Your task to perform on an android device: Search for "macbook" on target.com, select the first entry, add it to the cart, then select checkout. Image 0: 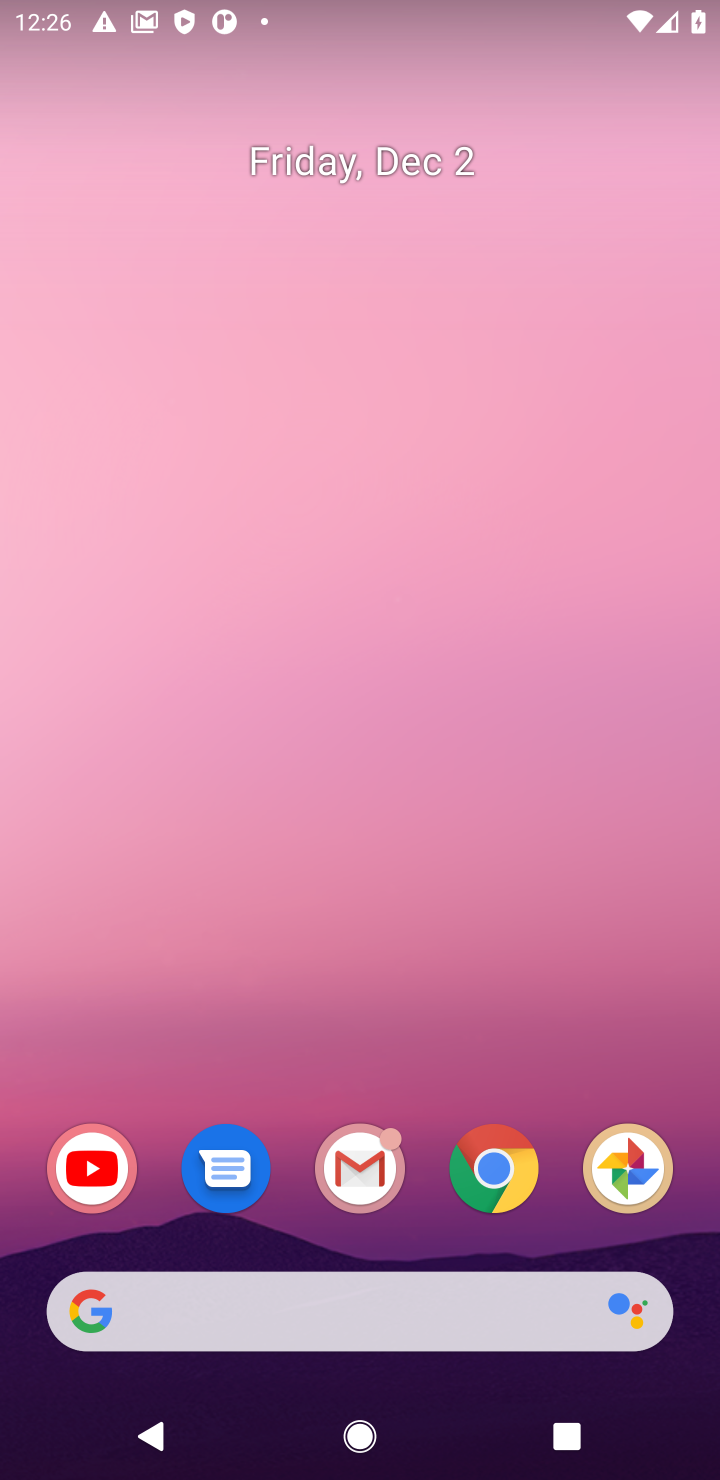
Step 0: click (499, 1182)
Your task to perform on an android device: Search for "macbook" on target.com, select the first entry, add it to the cart, then select checkout. Image 1: 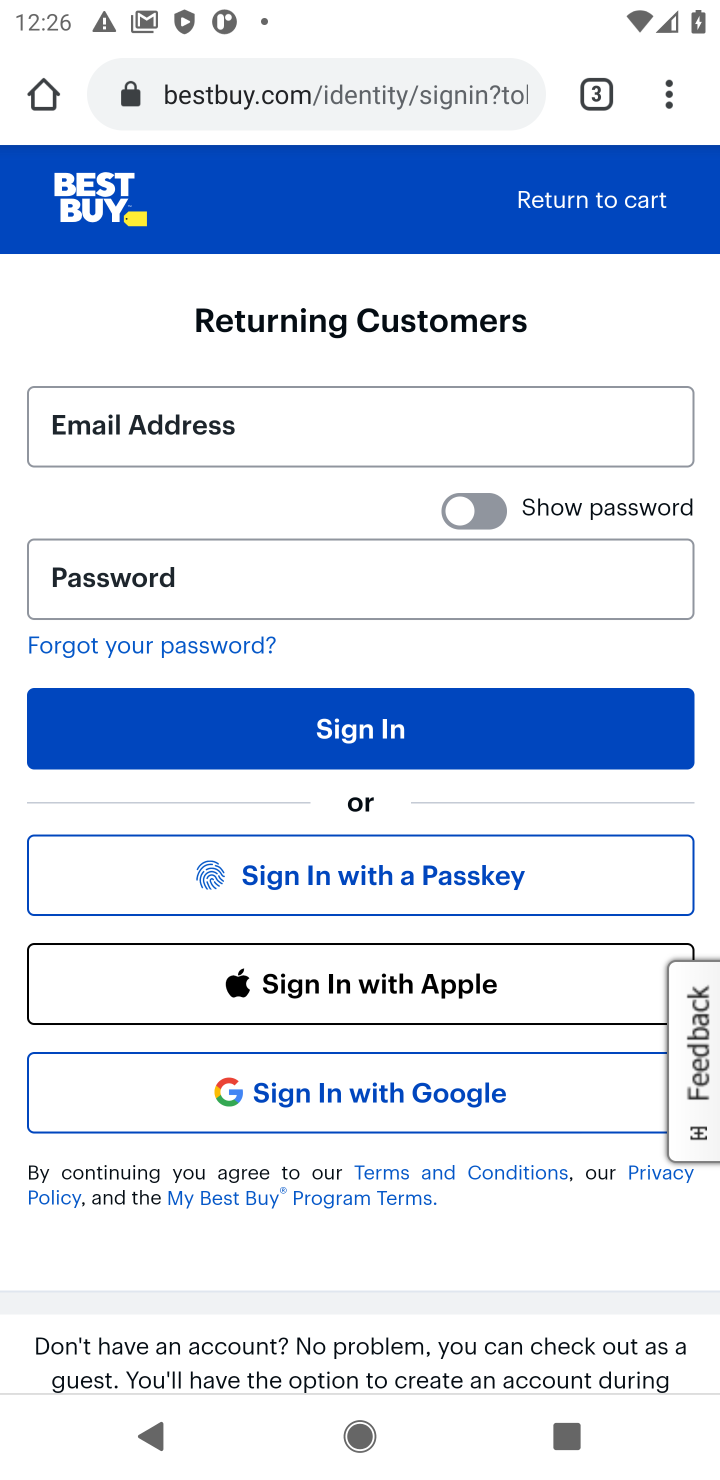
Step 1: click (293, 84)
Your task to perform on an android device: Search for "macbook" on target.com, select the first entry, add it to the cart, then select checkout. Image 2: 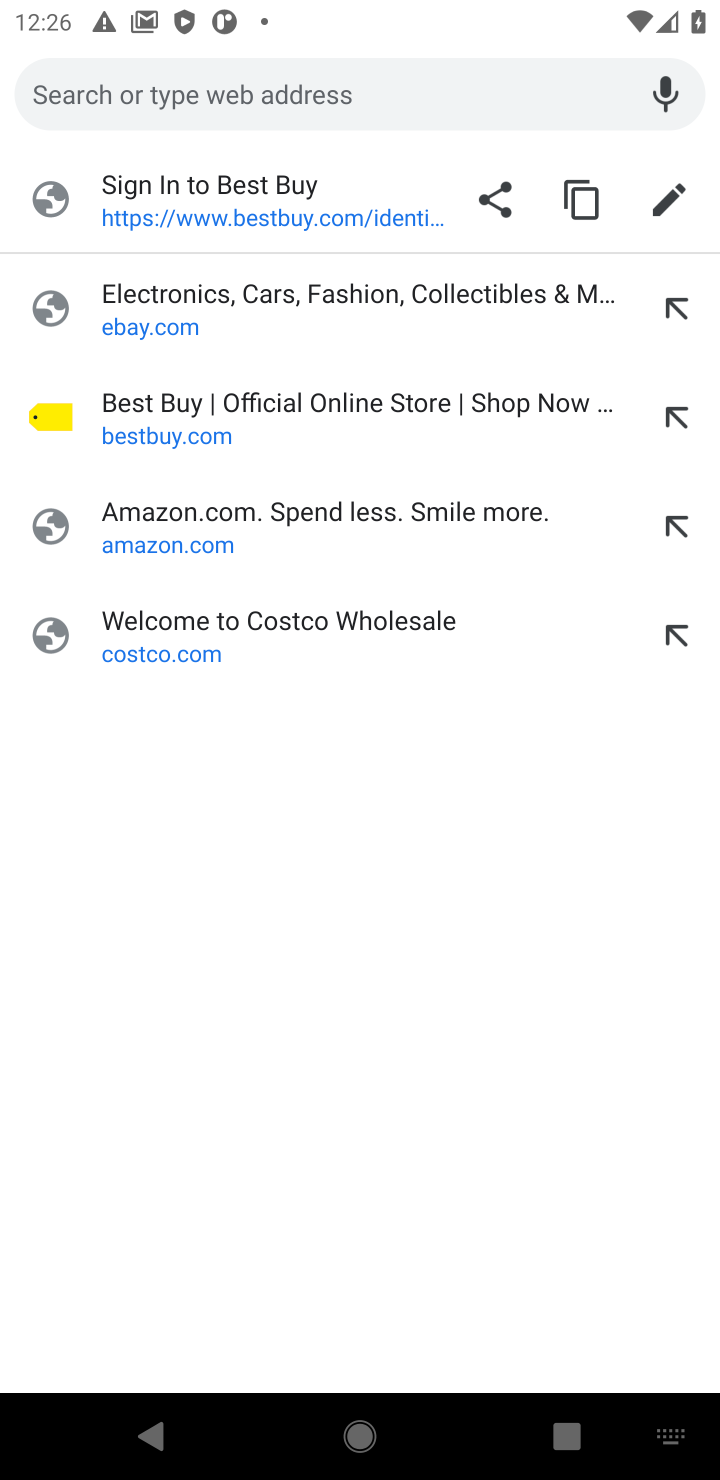
Step 2: type "target.com"
Your task to perform on an android device: Search for "macbook" on target.com, select the first entry, add it to the cart, then select checkout. Image 3: 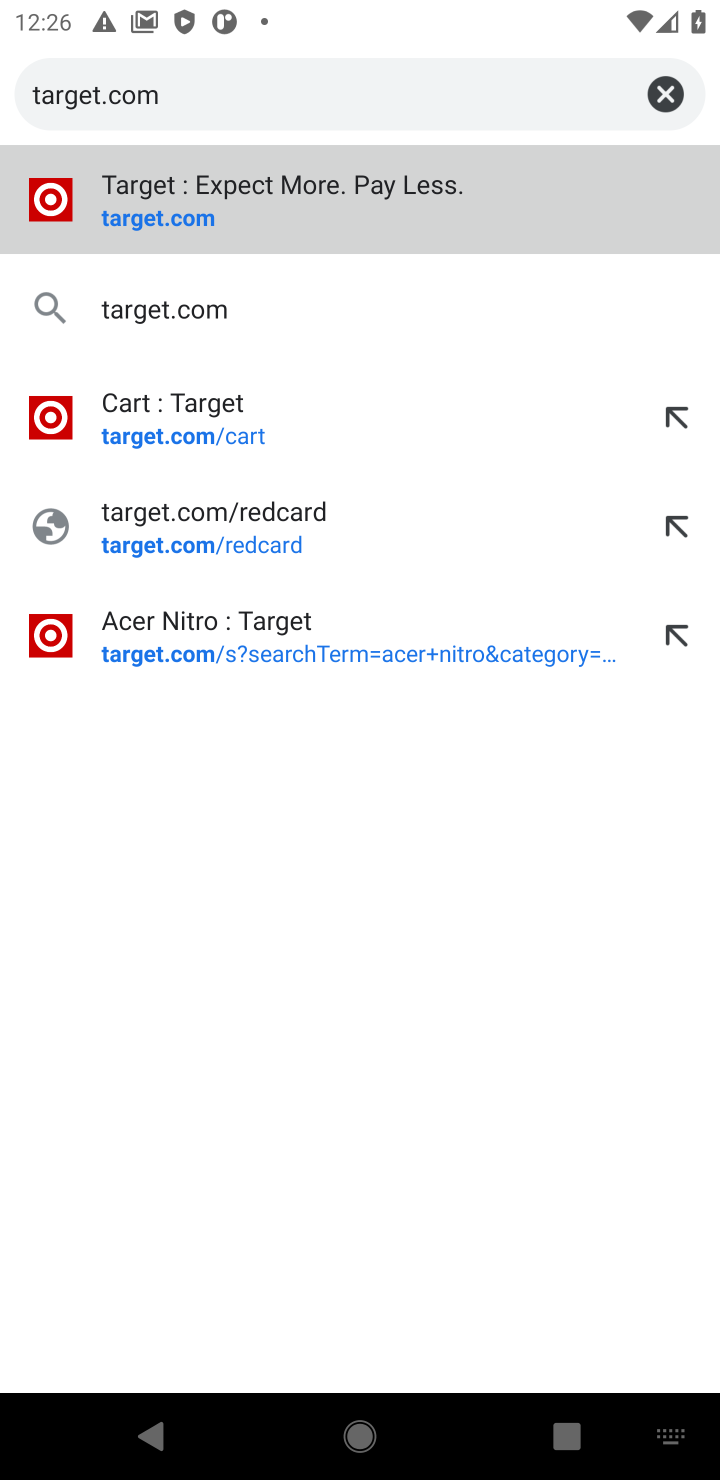
Step 3: click (139, 227)
Your task to perform on an android device: Search for "macbook" on target.com, select the first entry, add it to the cart, then select checkout. Image 4: 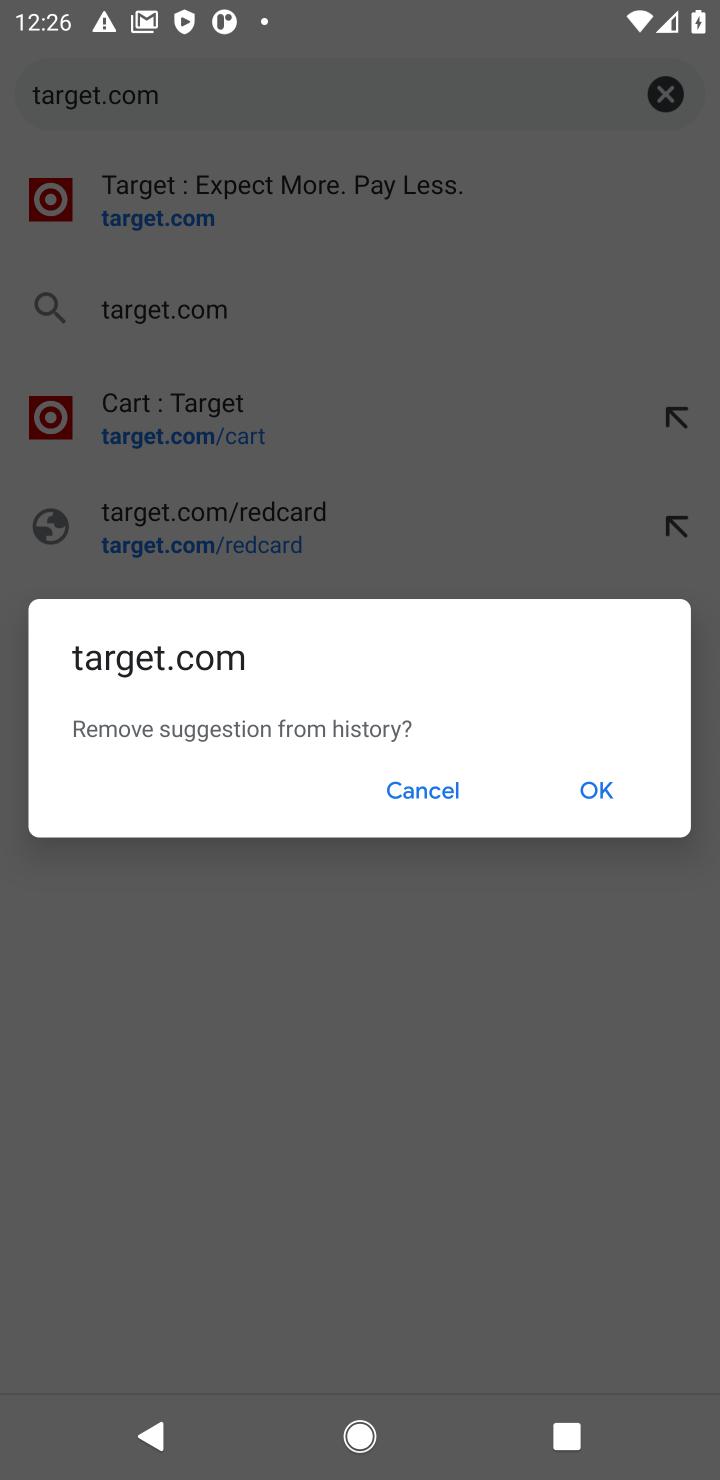
Step 4: click (601, 795)
Your task to perform on an android device: Search for "macbook" on target.com, select the first entry, add it to the cart, then select checkout. Image 5: 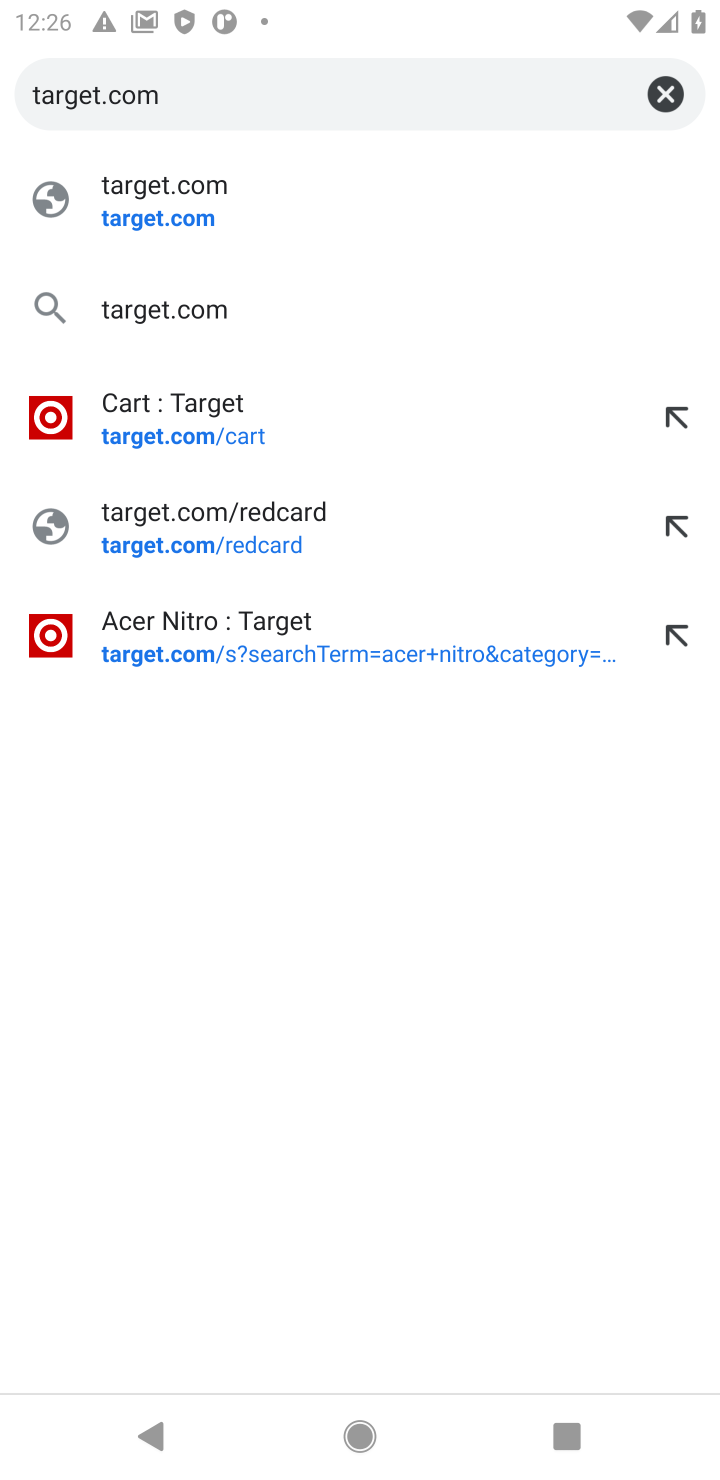
Step 5: click (446, 799)
Your task to perform on an android device: Search for "macbook" on target.com, select the first entry, add it to the cart, then select checkout. Image 6: 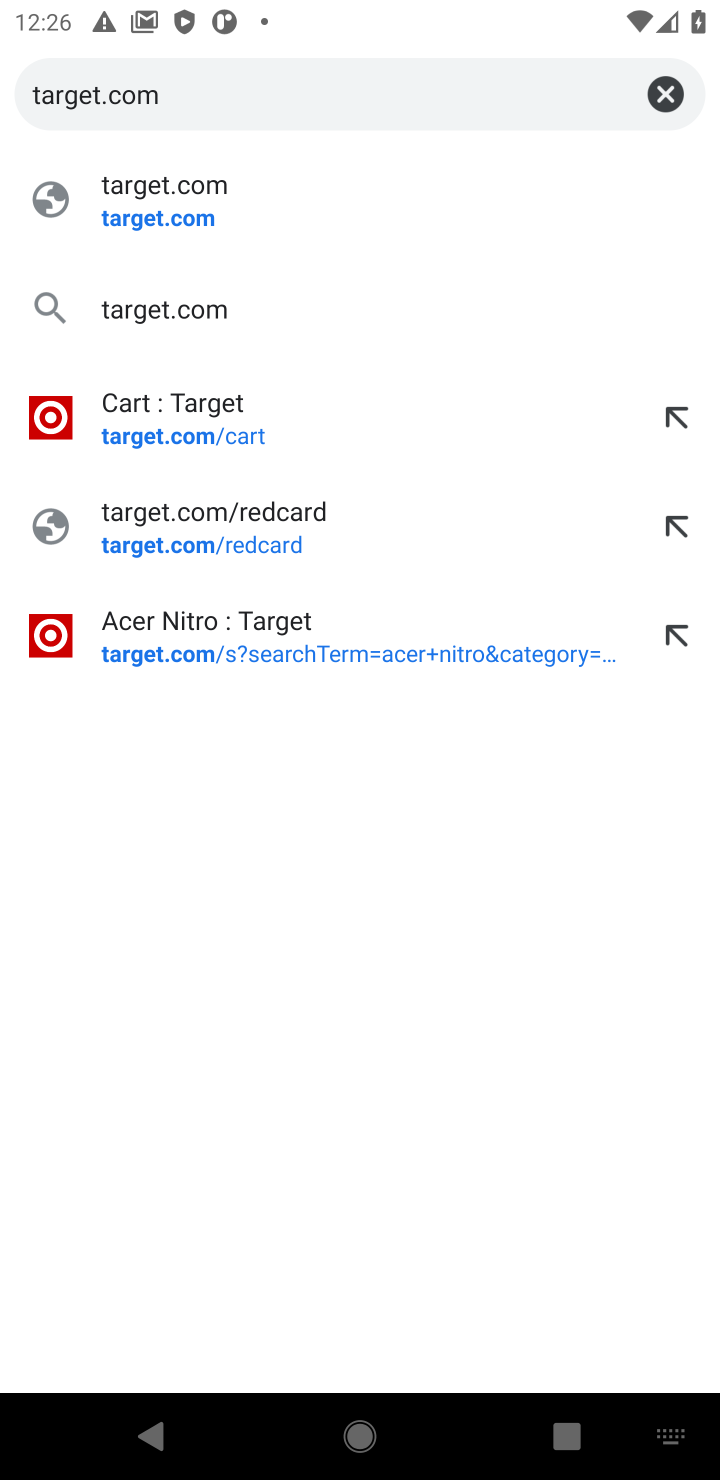
Step 6: click (152, 211)
Your task to perform on an android device: Search for "macbook" on target.com, select the first entry, add it to the cart, then select checkout. Image 7: 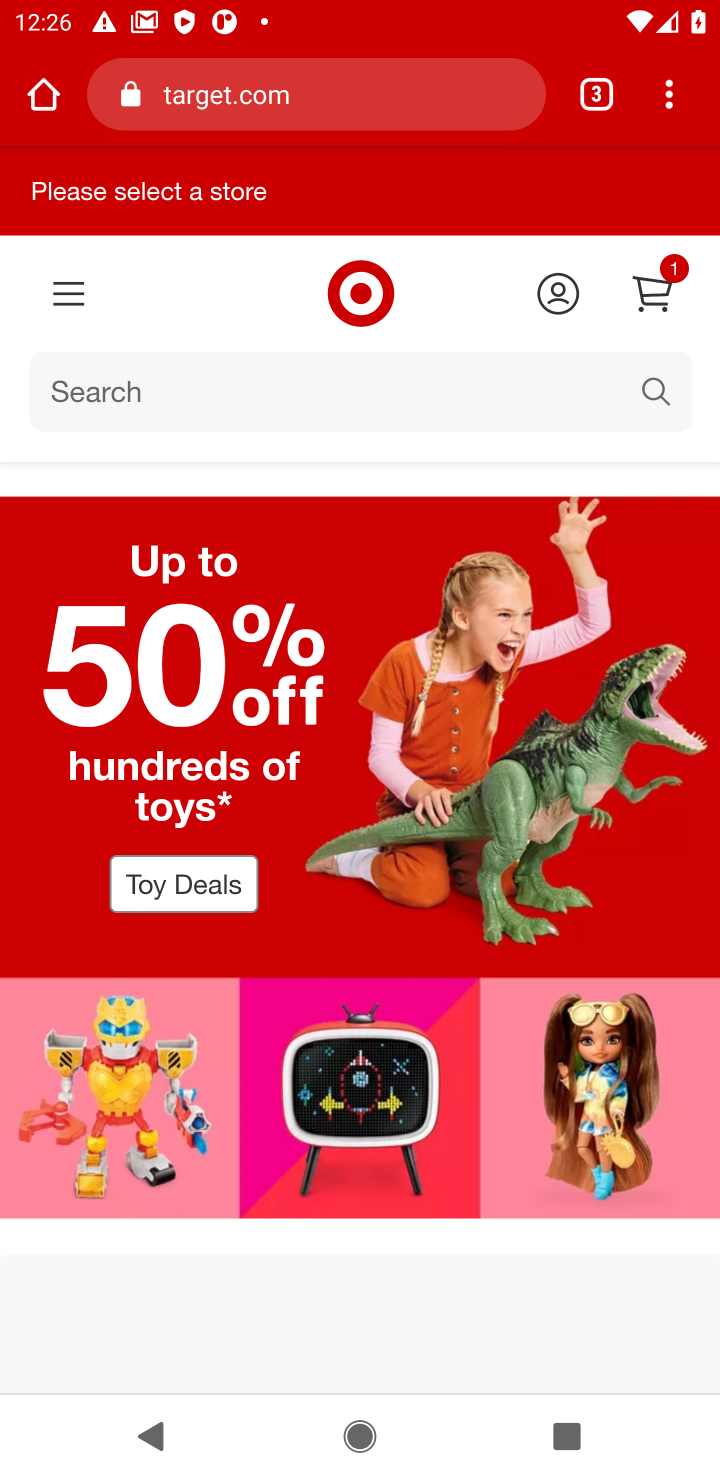
Step 7: click (79, 393)
Your task to perform on an android device: Search for "macbook" on target.com, select the first entry, add it to the cart, then select checkout. Image 8: 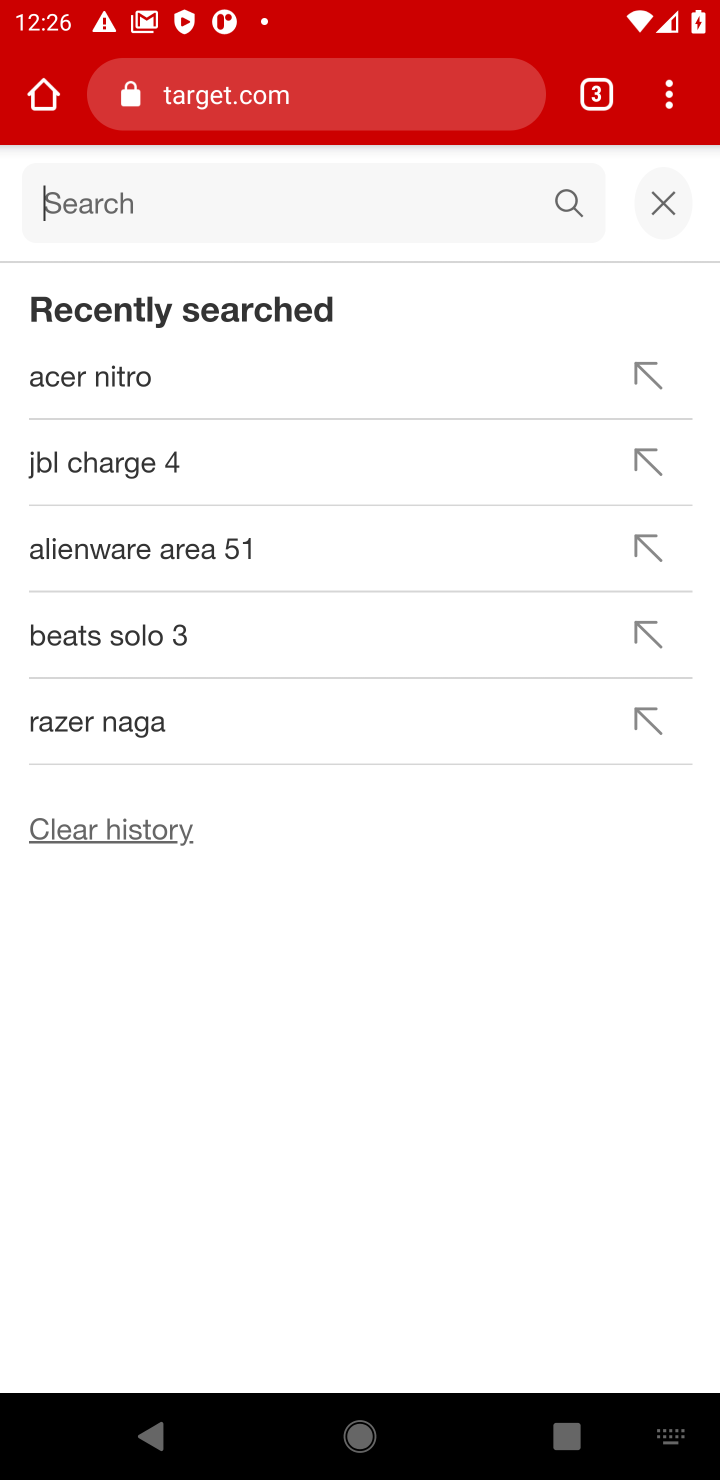
Step 8: type "macbook"
Your task to perform on an android device: Search for "macbook" on target.com, select the first entry, add it to the cart, then select checkout. Image 9: 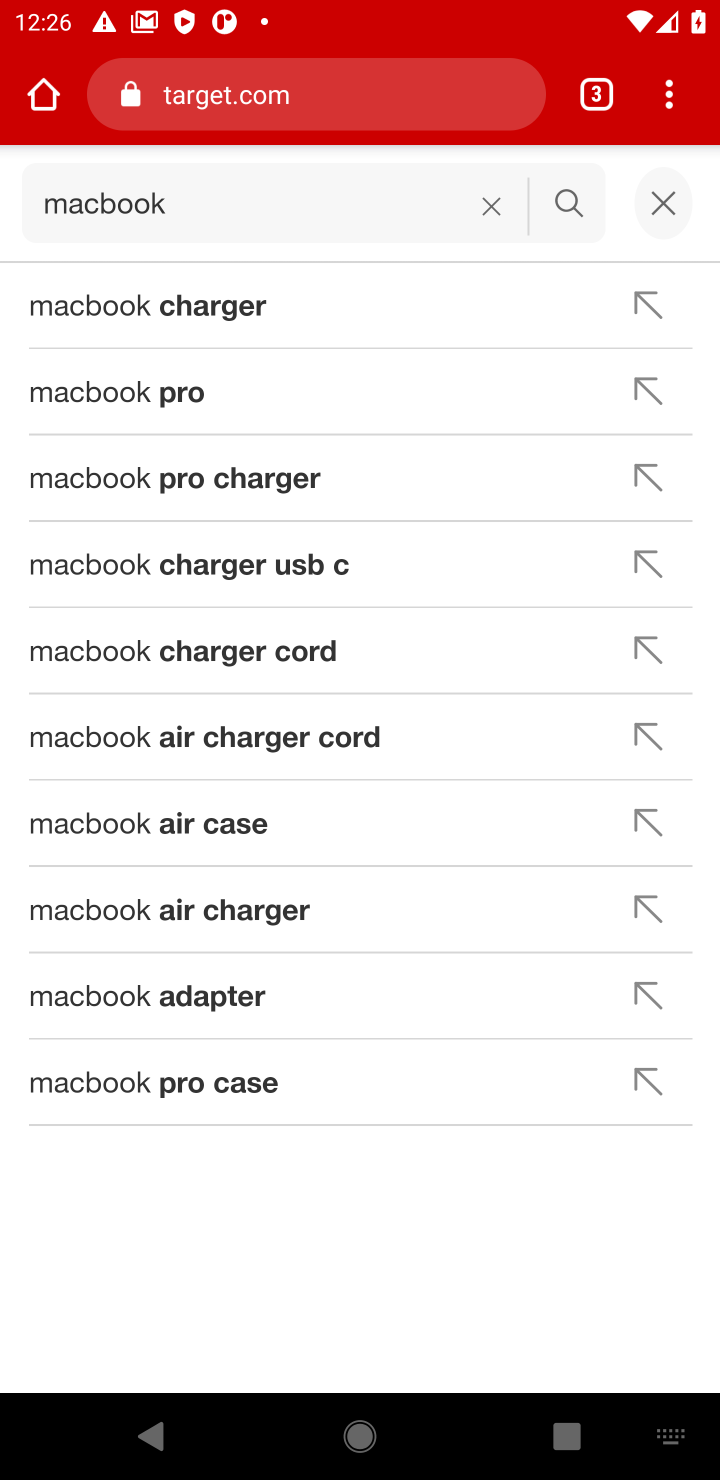
Step 9: click (574, 209)
Your task to perform on an android device: Search for "macbook" on target.com, select the first entry, add it to the cart, then select checkout. Image 10: 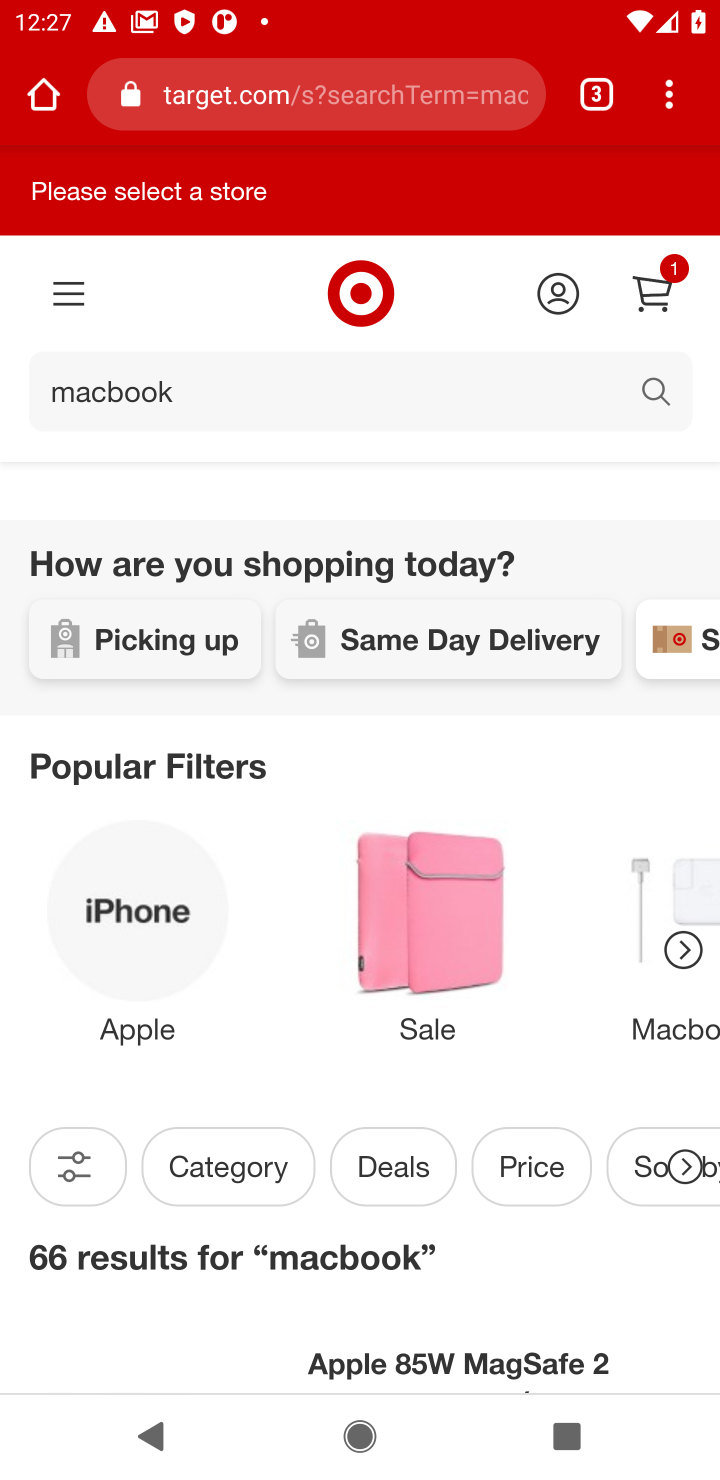
Step 10: drag from (246, 928) to (203, 398)
Your task to perform on an android device: Search for "macbook" on target.com, select the first entry, add it to the cart, then select checkout. Image 11: 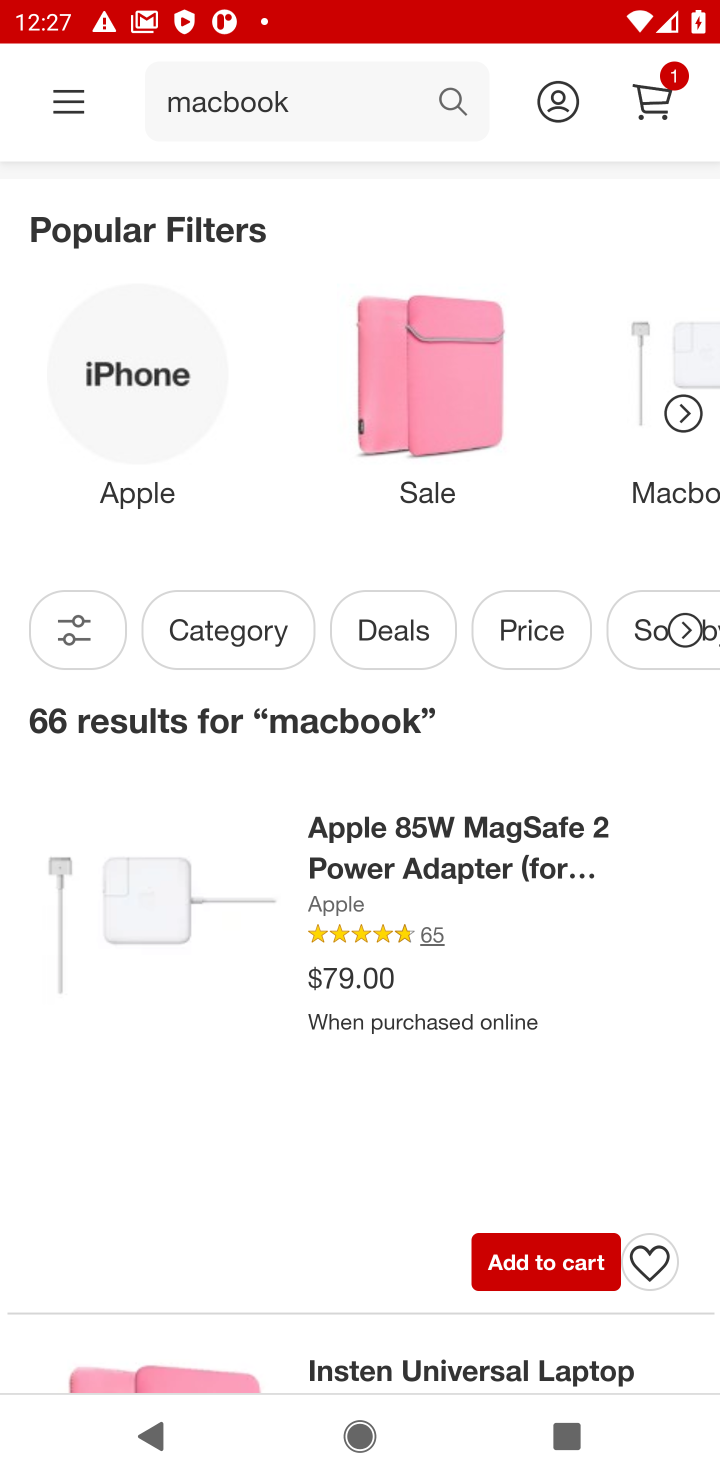
Step 11: click (408, 895)
Your task to perform on an android device: Search for "macbook" on target.com, select the first entry, add it to the cart, then select checkout. Image 12: 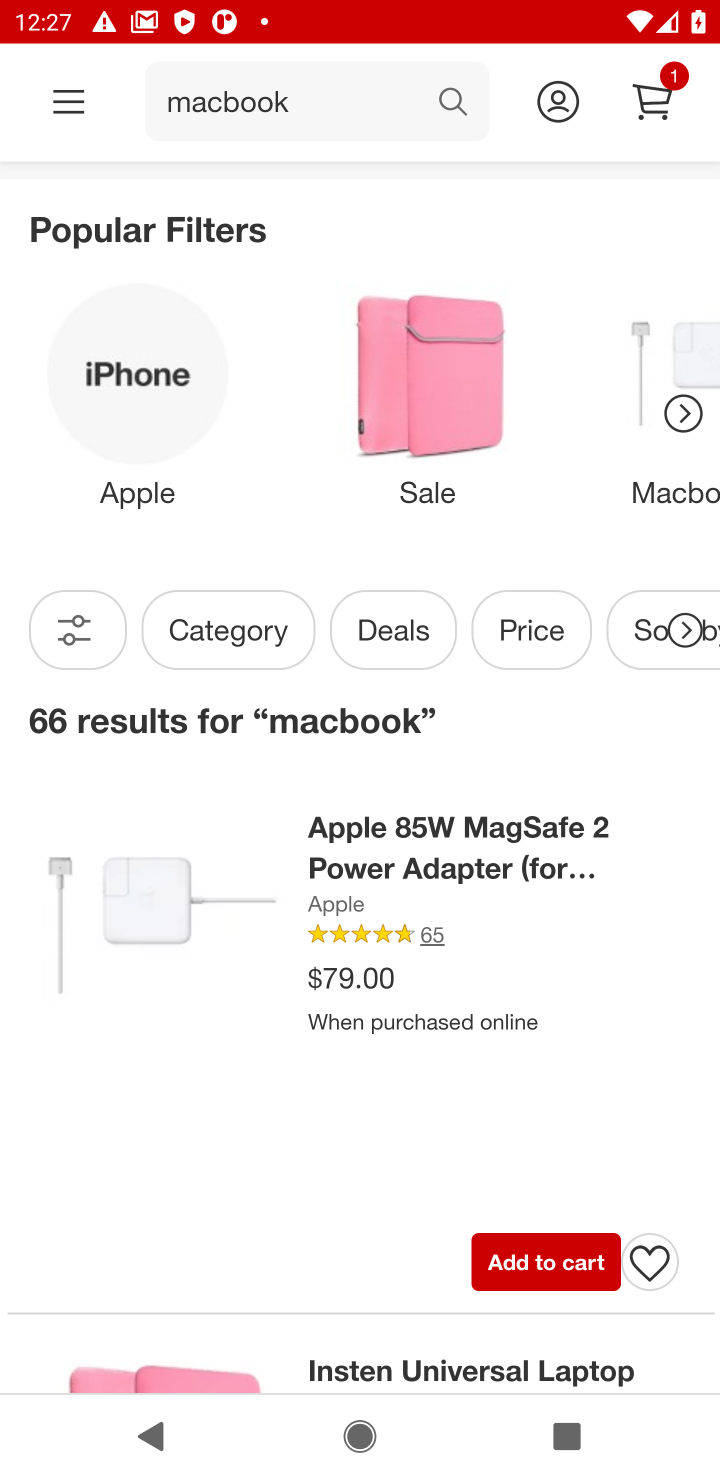
Step 12: click (376, 850)
Your task to perform on an android device: Search for "macbook" on target.com, select the first entry, add it to the cart, then select checkout. Image 13: 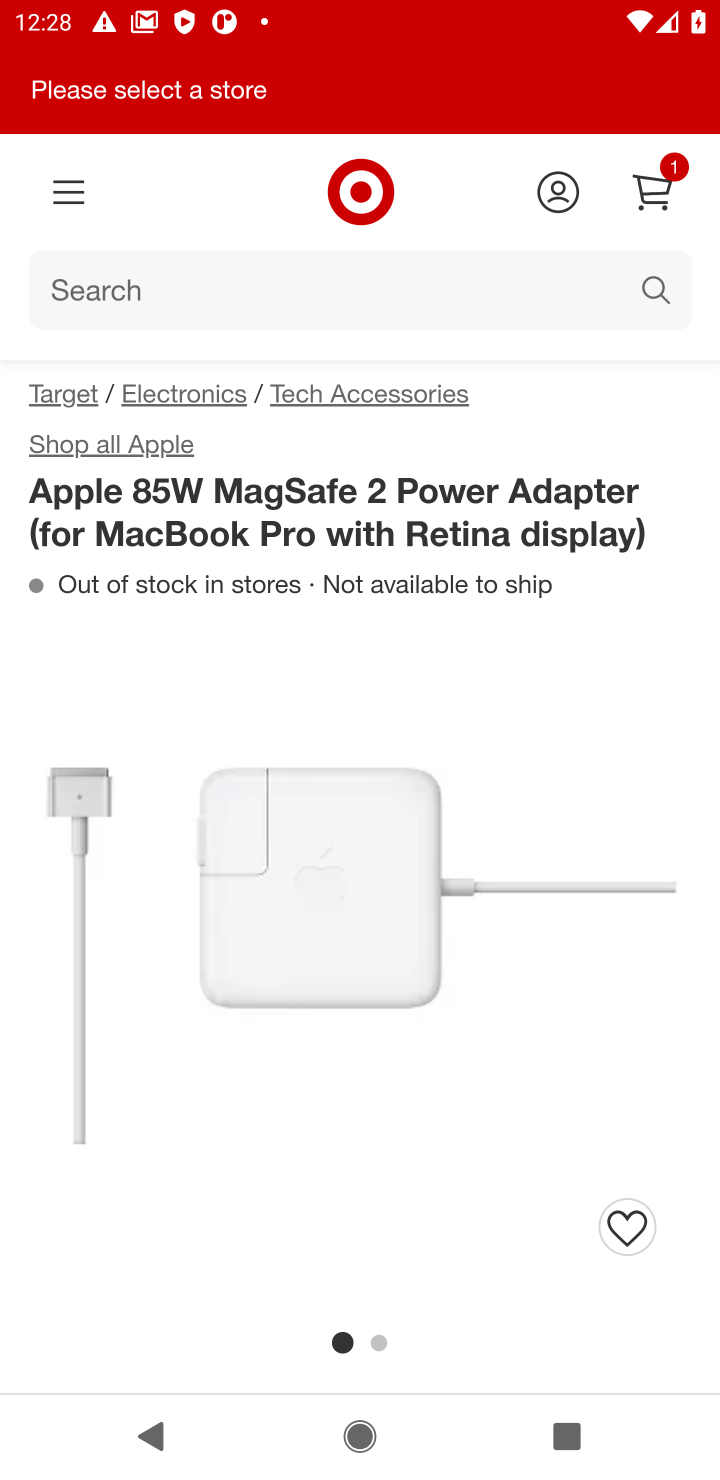
Step 13: drag from (464, 722) to (369, 214)
Your task to perform on an android device: Search for "macbook" on target.com, select the first entry, add it to the cart, then select checkout. Image 14: 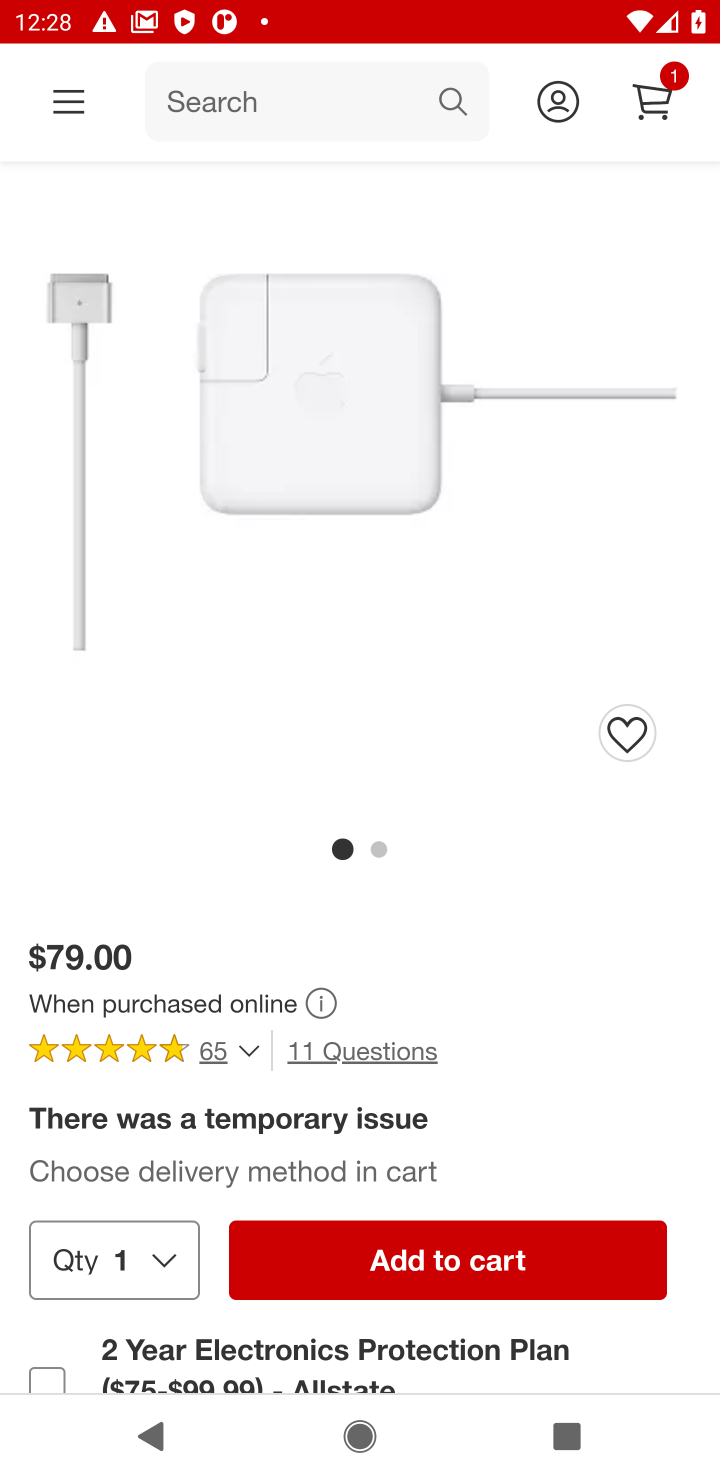
Step 14: click (404, 1256)
Your task to perform on an android device: Search for "macbook" on target.com, select the first entry, add it to the cart, then select checkout. Image 15: 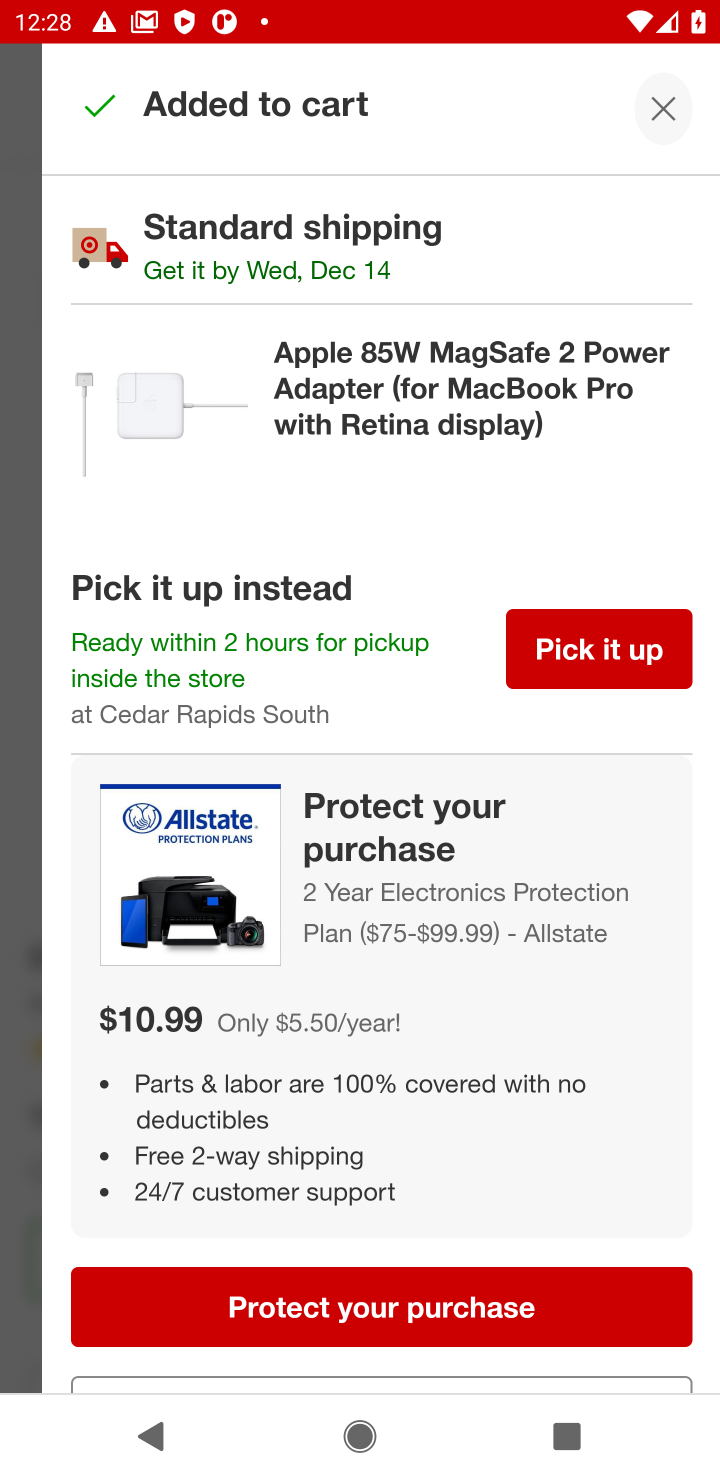
Step 15: click (663, 115)
Your task to perform on an android device: Search for "macbook" on target.com, select the first entry, add it to the cart, then select checkout. Image 16: 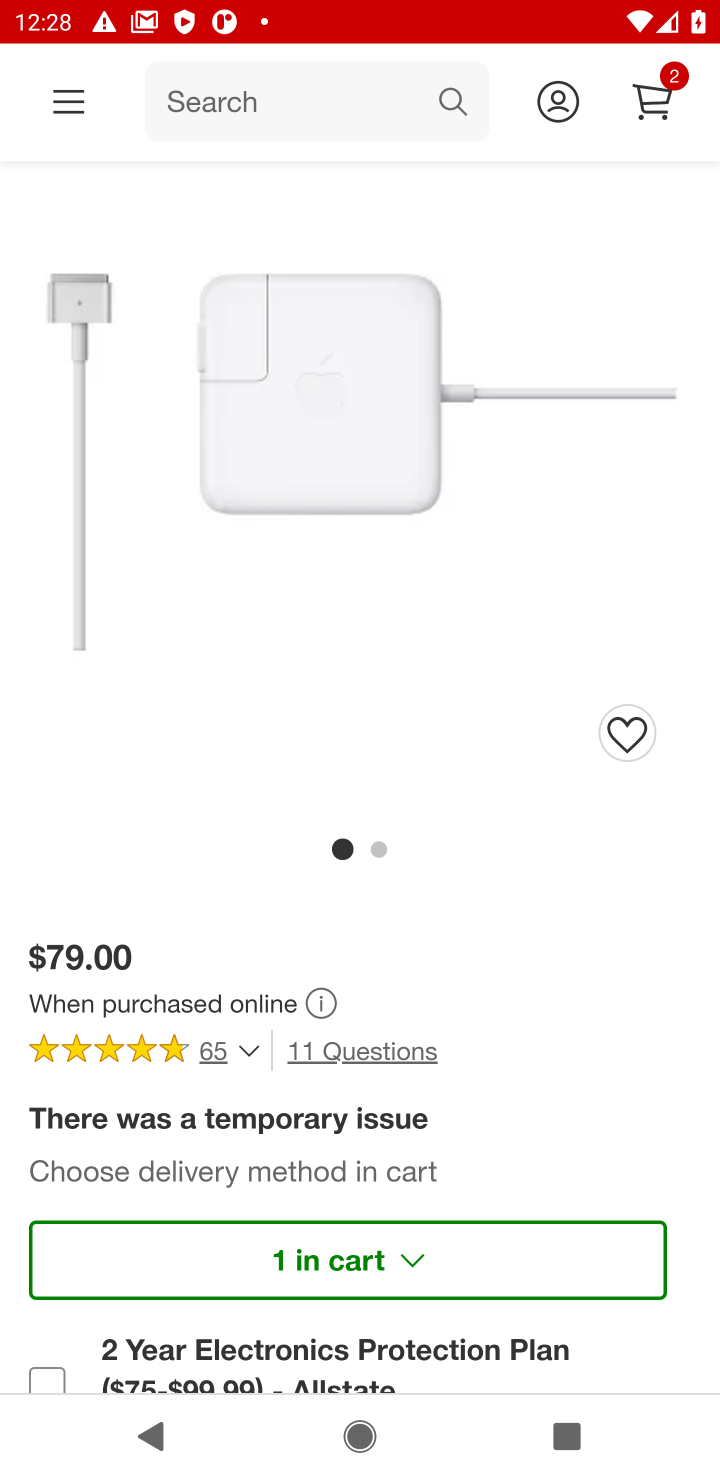
Step 16: click (653, 86)
Your task to perform on an android device: Search for "macbook" on target.com, select the first entry, add it to the cart, then select checkout. Image 17: 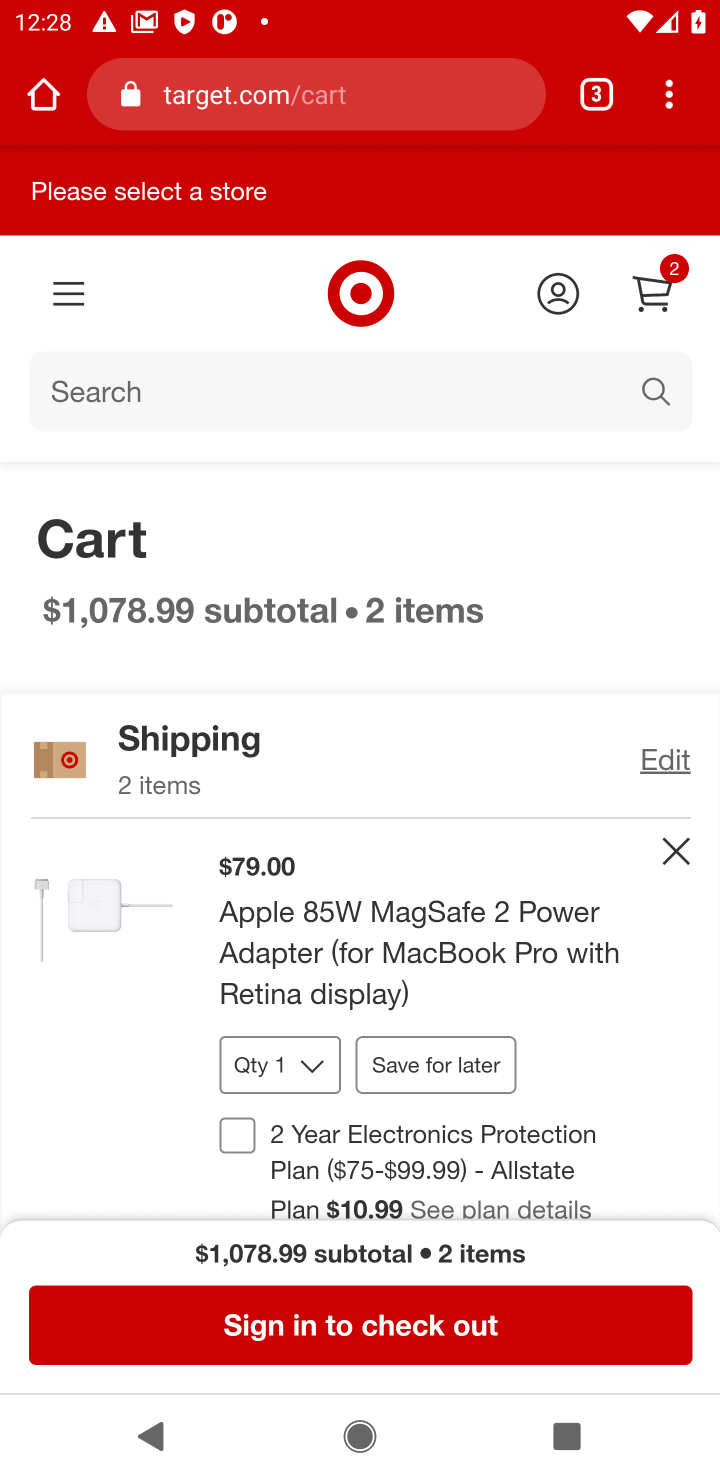
Step 17: click (384, 1324)
Your task to perform on an android device: Search for "macbook" on target.com, select the first entry, add it to the cart, then select checkout. Image 18: 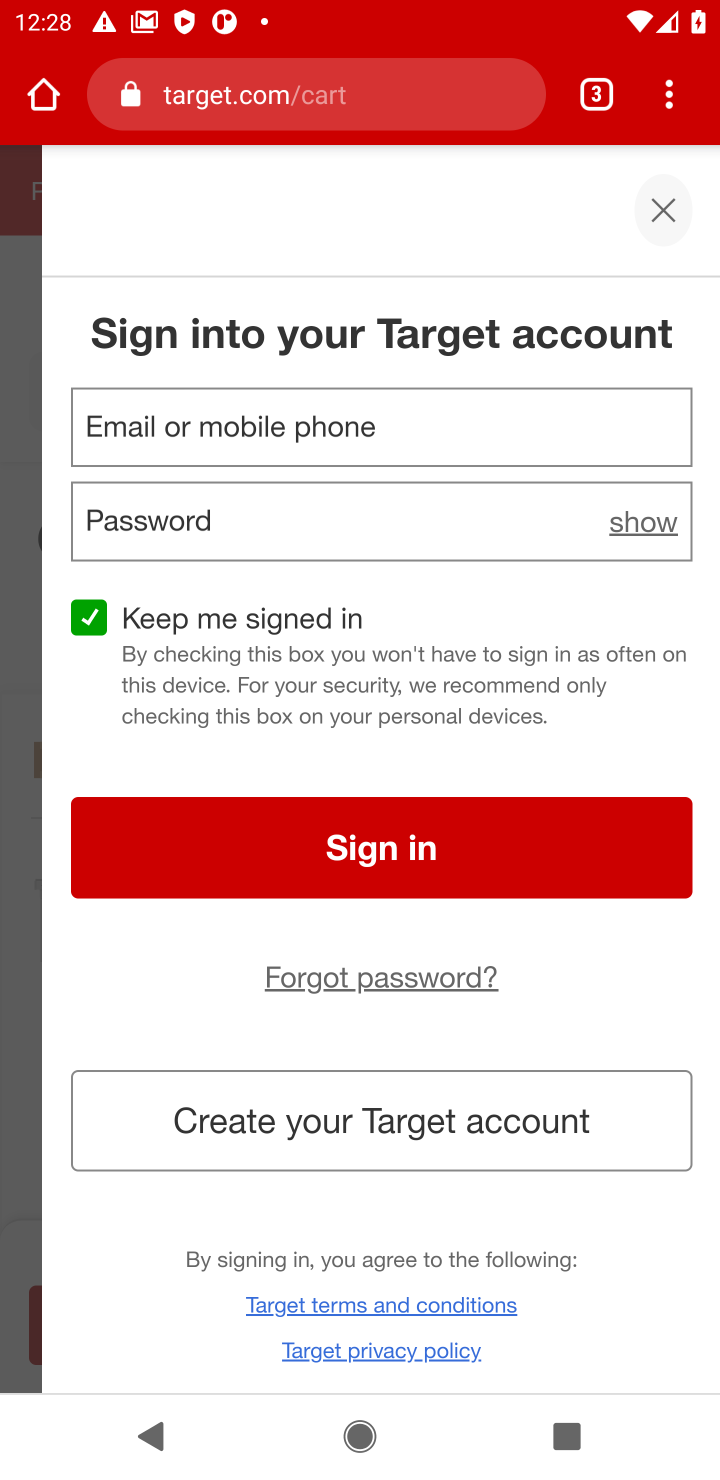
Step 18: task complete